Your task to perform on an android device: Show me popular games on the Play Store Image 0: 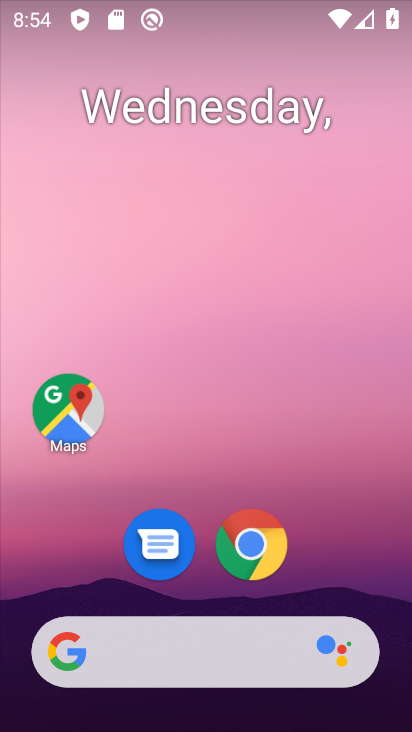
Step 0: drag from (187, 603) to (300, 32)
Your task to perform on an android device: Show me popular games on the Play Store Image 1: 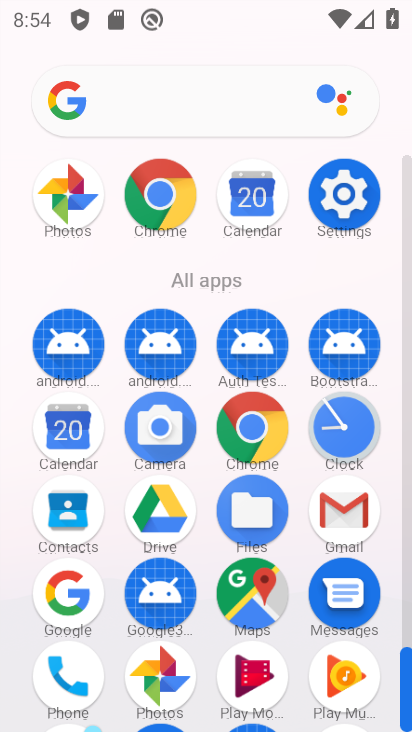
Step 1: drag from (133, 506) to (261, 147)
Your task to perform on an android device: Show me popular games on the Play Store Image 2: 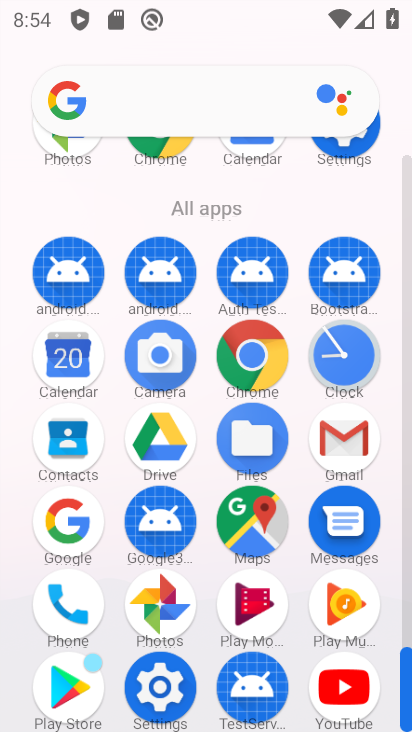
Step 2: click (69, 679)
Your task to perform on an android device: Show me popular games on the Play Store Image 3: 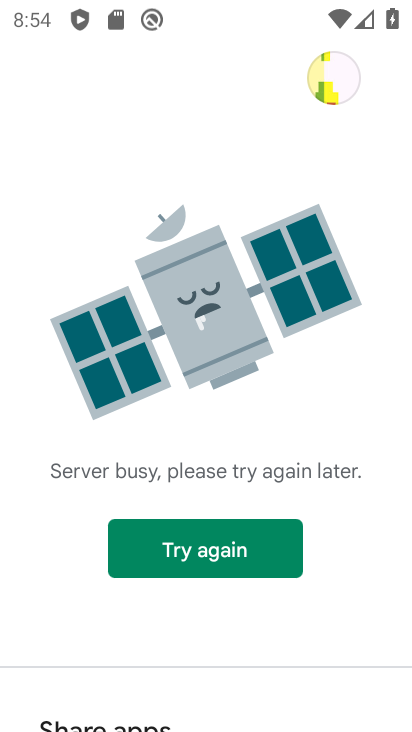
Step 3: click (179, 559)
Your task to perform on an android device: Show me popular games on the Play Store Image 4: 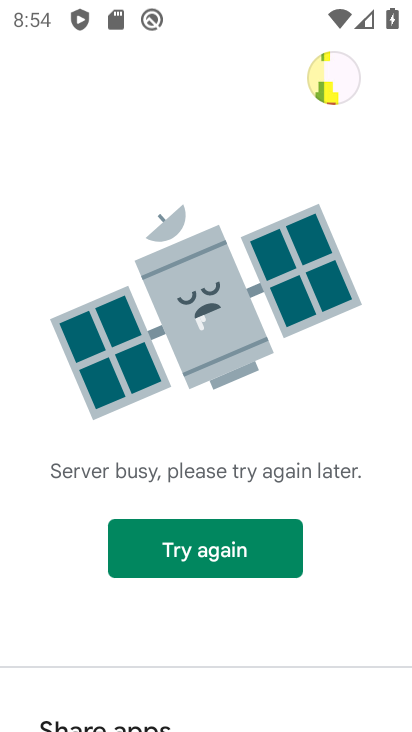
Step 4: task complete